Your task to perform on an android device: snooze an email in the gmail app Image 0: 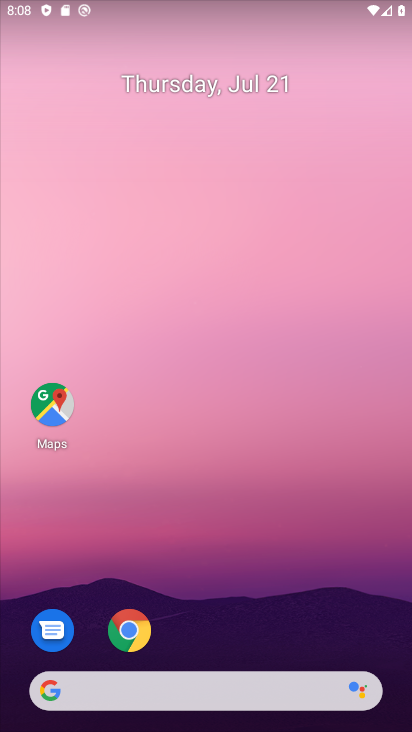
Step 0: drag from (229, 638) to (291, 4)
Your task to perform on an android device: snooze an email in the gmail app Image 1: 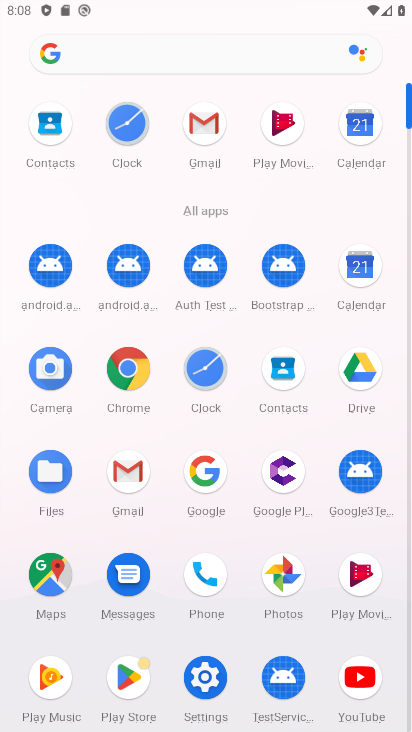
Step 1: click (207, 146)
Your task to perform on an android device: snooze an email in the gmail app Image 2: 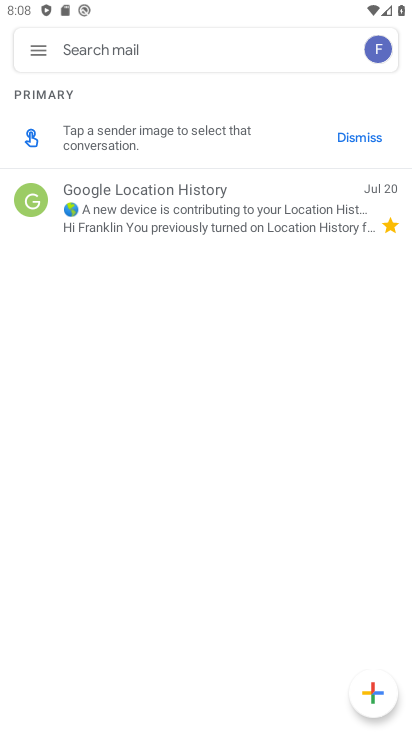
Step 2: click (152, 207)
Your task to perform on an android device: snooze an email in the gmail app Image 3: 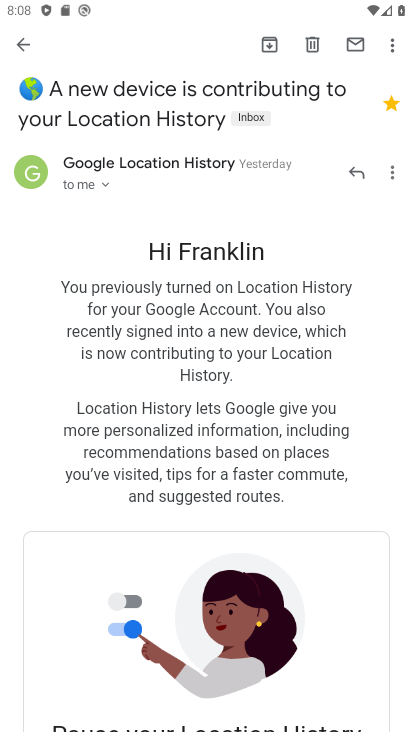
Step 3: click (390, 47)
Your task to perform on an android device: snooze an email in the gmail app Image 4: 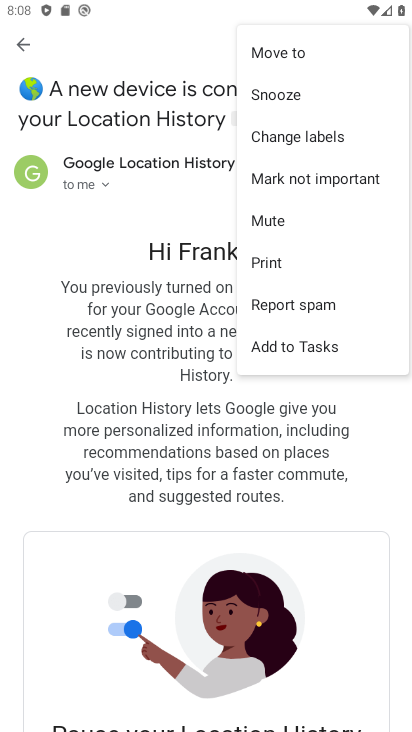
Step 4: click (300, 87)
Your task to perform on an android device: snooze an email in the gmail app Image 5: 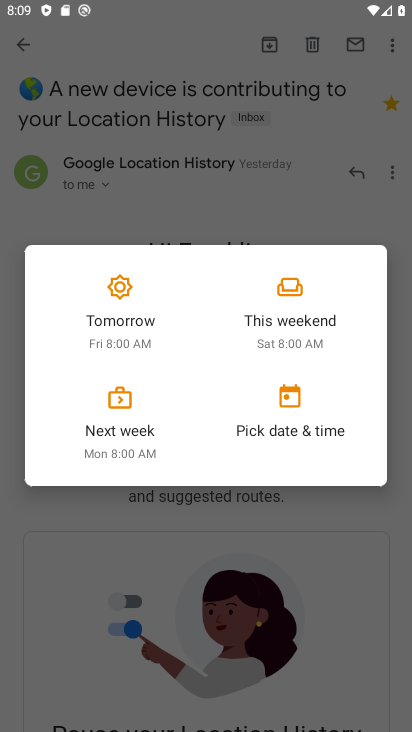
Step 5: click (119, 319)
Your task to perform on an android device: snooze an email in the gmail app Image 6: 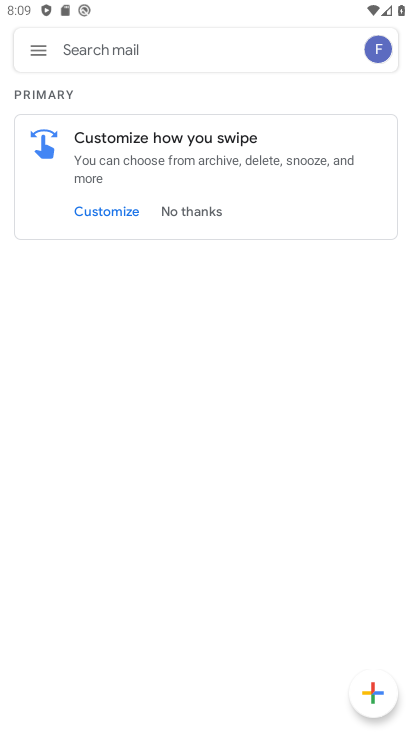
Step 6: task complete